Your task to perform on an android device: Open Google Image 0: 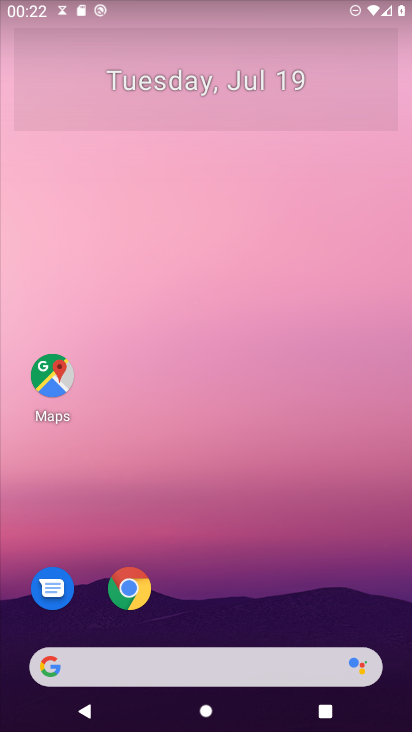
Step 0: press home button
Your task to perform on an android device: Open Google Image 1: 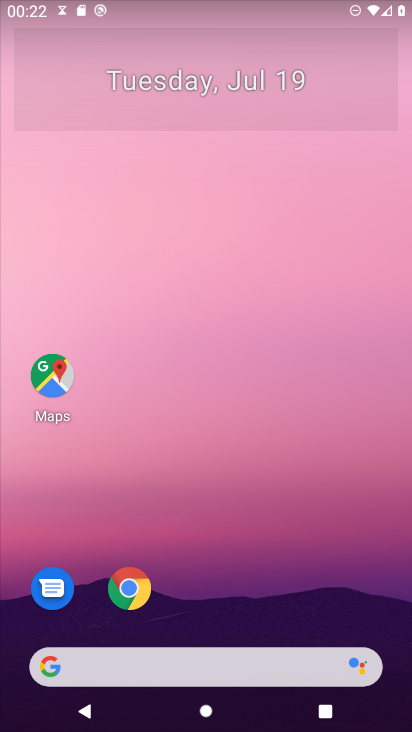
Step 1: drag from (270, 593) to (270, 69)
Your task to perform on an android device: Open Google Image 2: 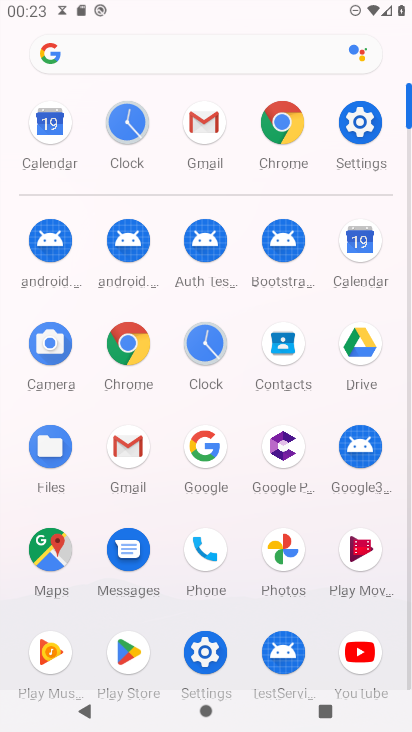
Step 2: click (194, 451)
Your task to perform on an android device: Open Google Image 3: 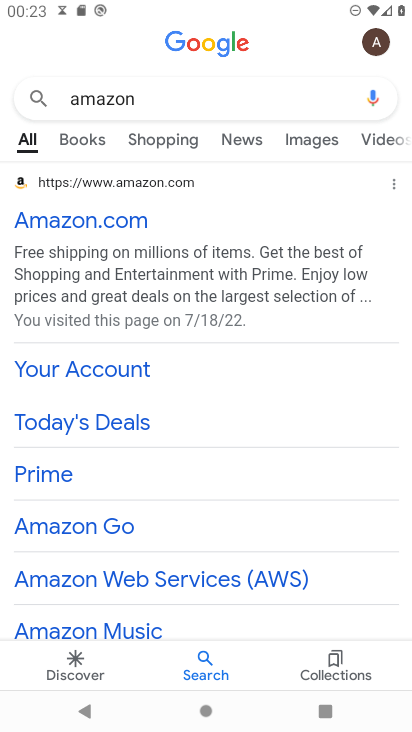
Step 3: click (184, 39)
Your task to perform on an android device: Open Google Image 4: 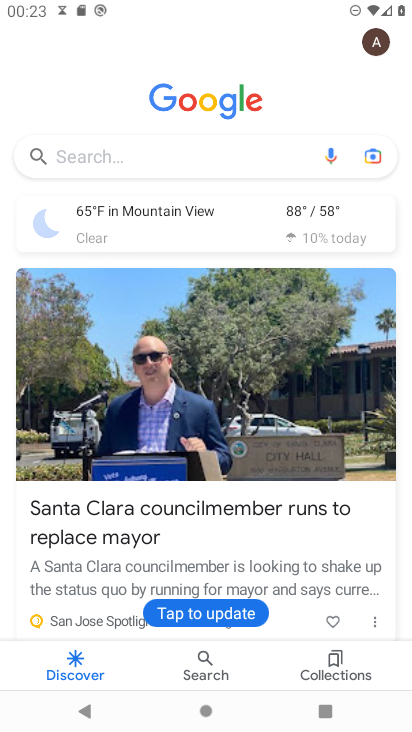
Step 4: task complete